Your task to perform on an android device: delete the emails in spam in the gmail app Image 0: 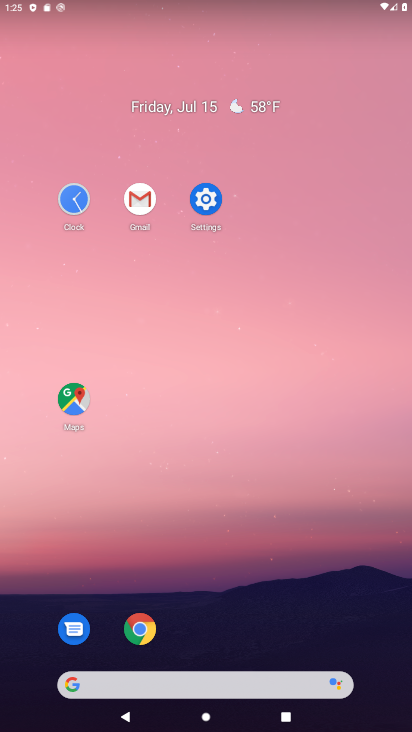
Step 0: click (144, 200)
Your task to perform on an android device: delete the emails in spam in the gmail app Image 1: 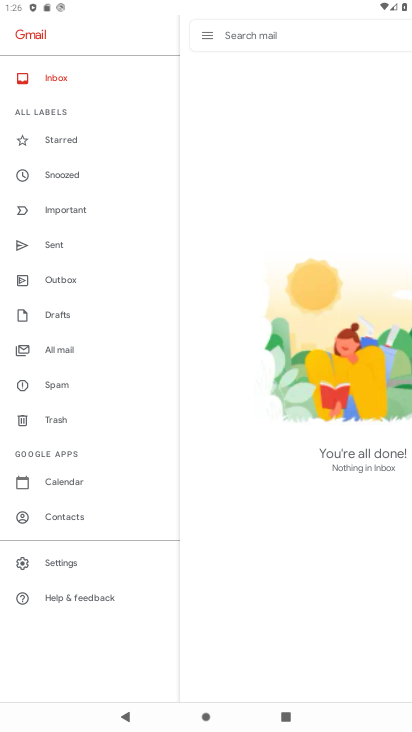
Step 1: click (88, 352)
Your task to perform on an android device: delete the emails in spam in the gmail app Image 2: 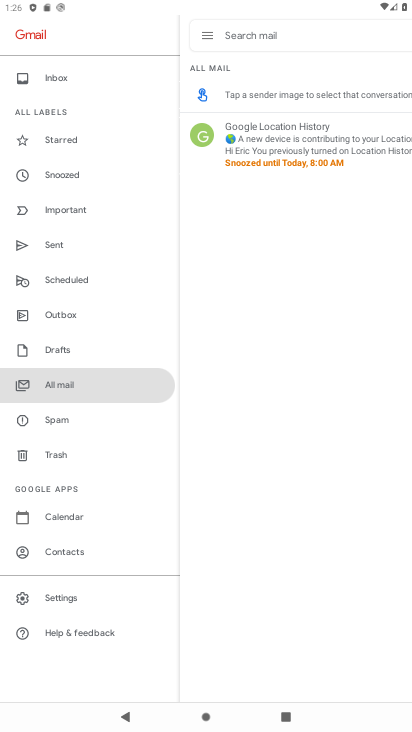
Step 2: click (313, 126)
Your task to perform on an android device: delete the emails in spam in the gmail app Image 3: 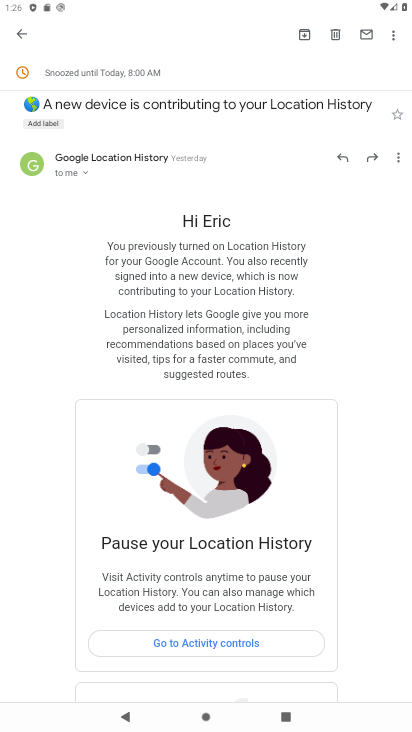
Step 3: click (337, 40)
Your task to perform on an android device: delete the emails in spam in the gmail app Image 4: 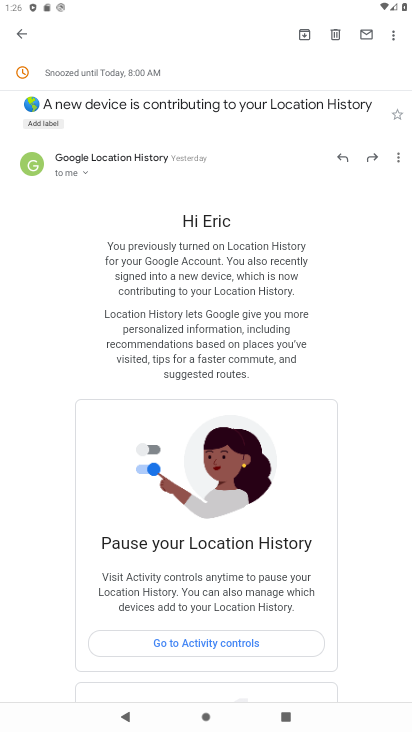
Step 4: click (330, 33)
Your task to perform on an android device: delete the emails in spam in the gmail app Image 5: 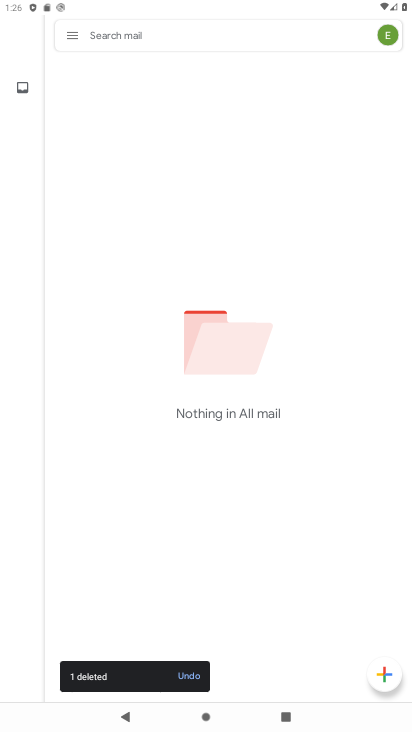
Step 5: task complete